Your task to perform on an android device: Search for pizza restaurants on Maps Image 0: 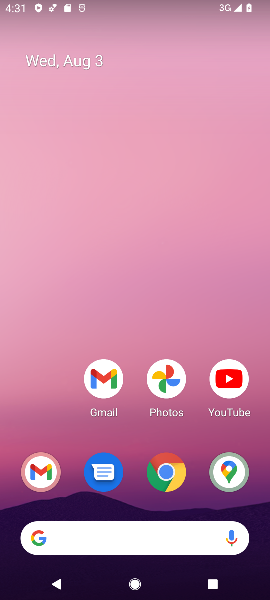
Step 0: drag from (212, 424) to (220, 125)
Your task to perform on an android device: Search for pizza restaurants on Maps Image 1: 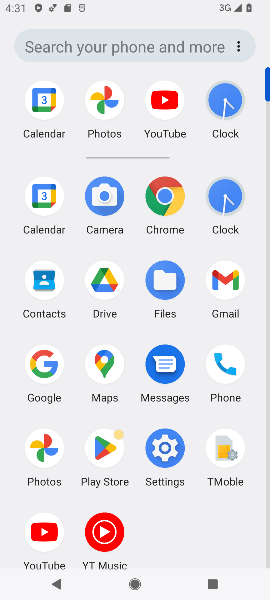
Step 1: click (110, 366)
Your task to perform on an android device: Search for pizza restaurants on Maps Image 2: 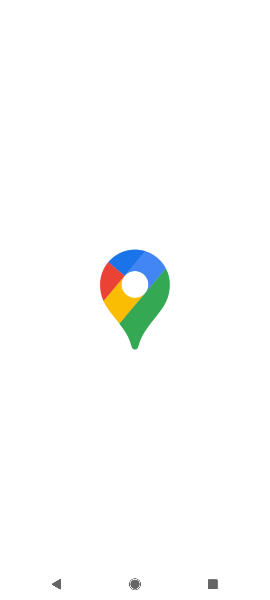
Step 2: task complete